Your task to perform on an android device: Do I have any events today? Image 0: 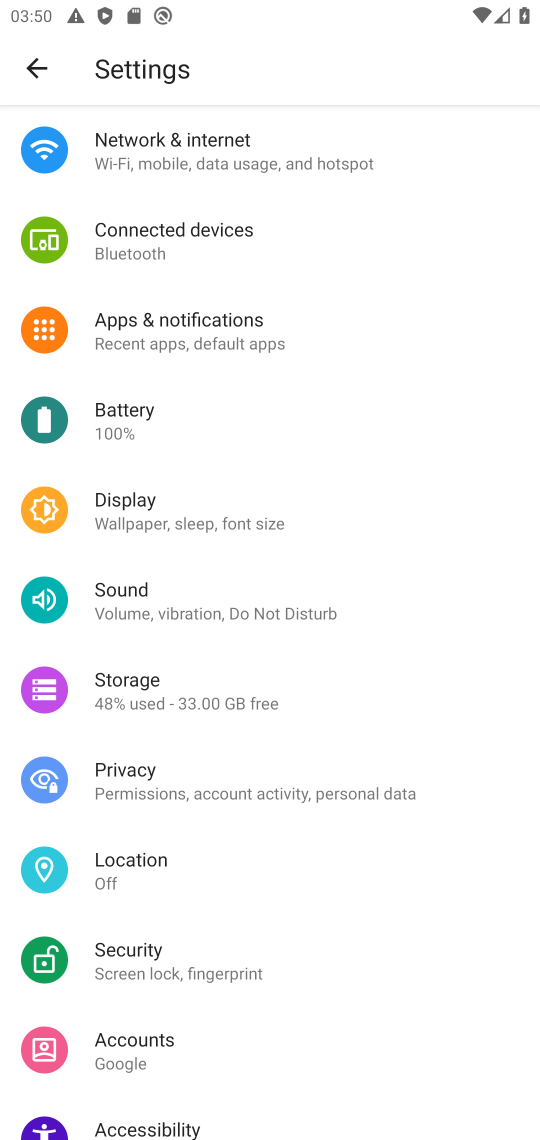
Step 0: press home button
Your task to perform on an android device: Do I have any events today? Image 1: 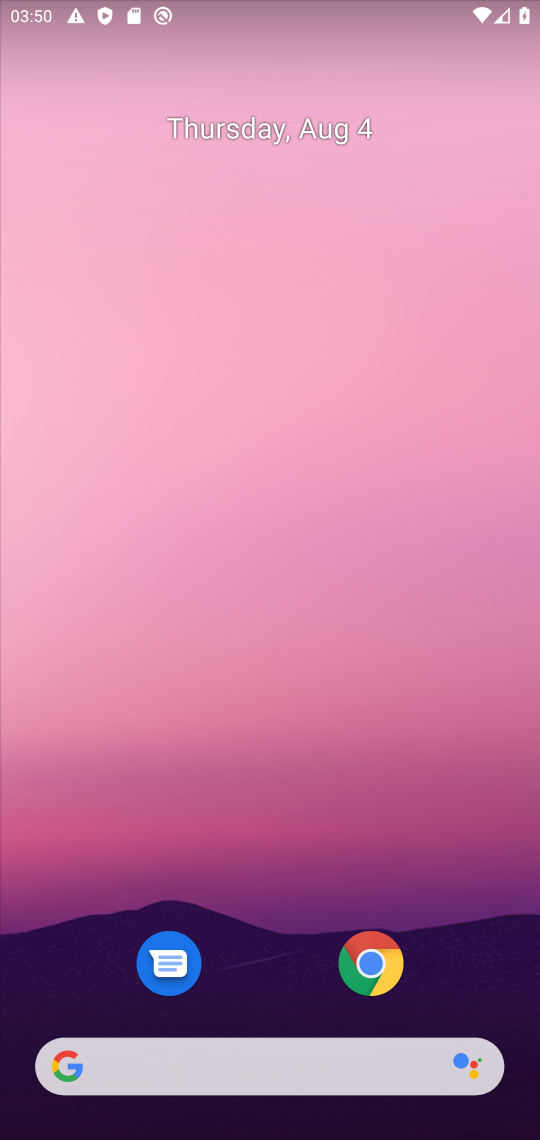
Step 1: drag from (252, 932) to (206, 106)
Your task to perform on an android device: Do I have any events today? Image 2: 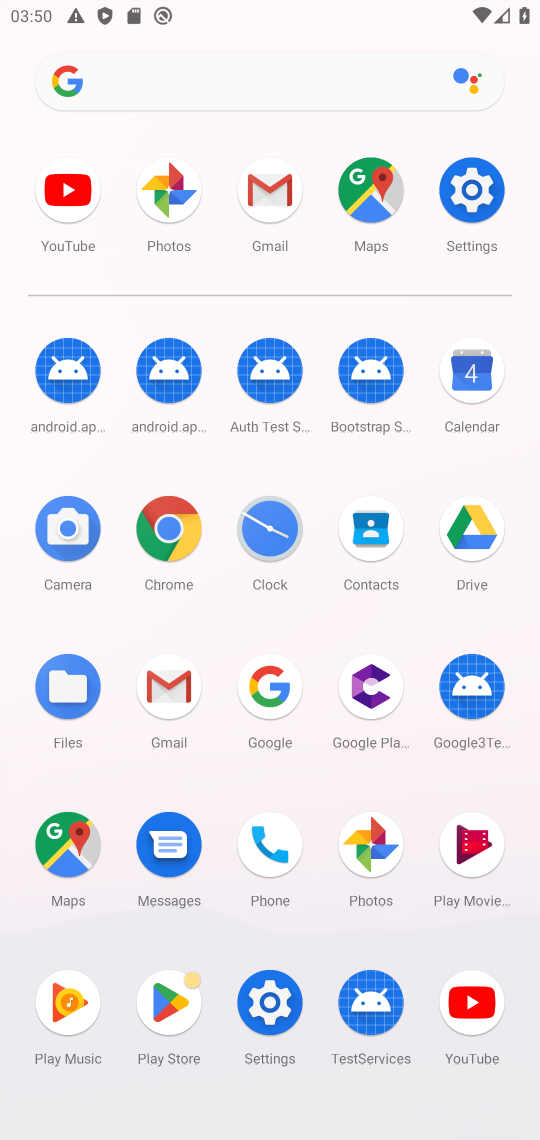
Step 2: click (494, 377)
Your task to perform on an android device: Do I have any events today? Image 3: 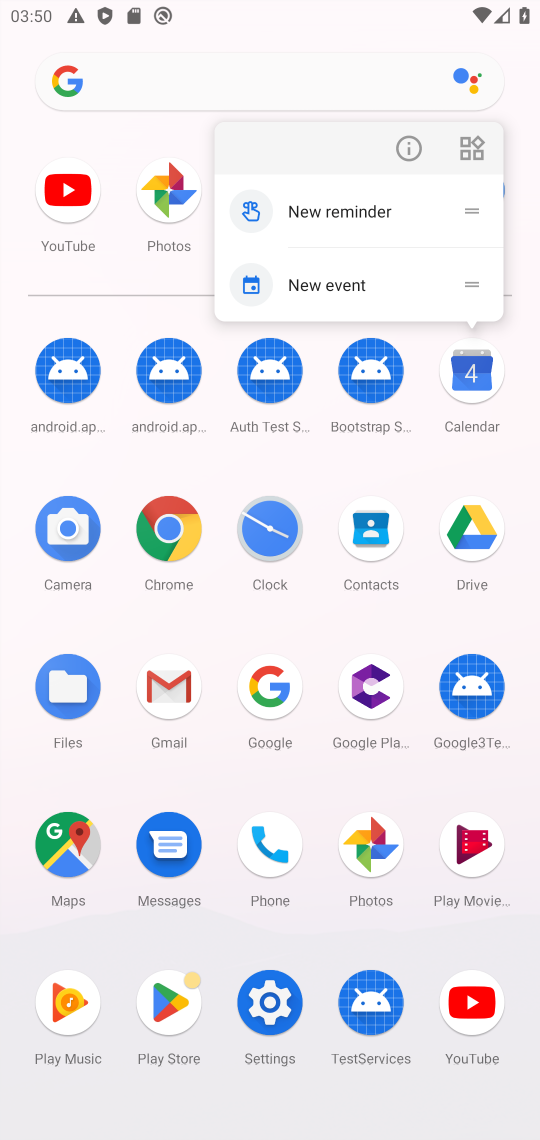
Step 3: click (479, 388)
Your task to perform on an android device: Do I have any events today? Image 4: 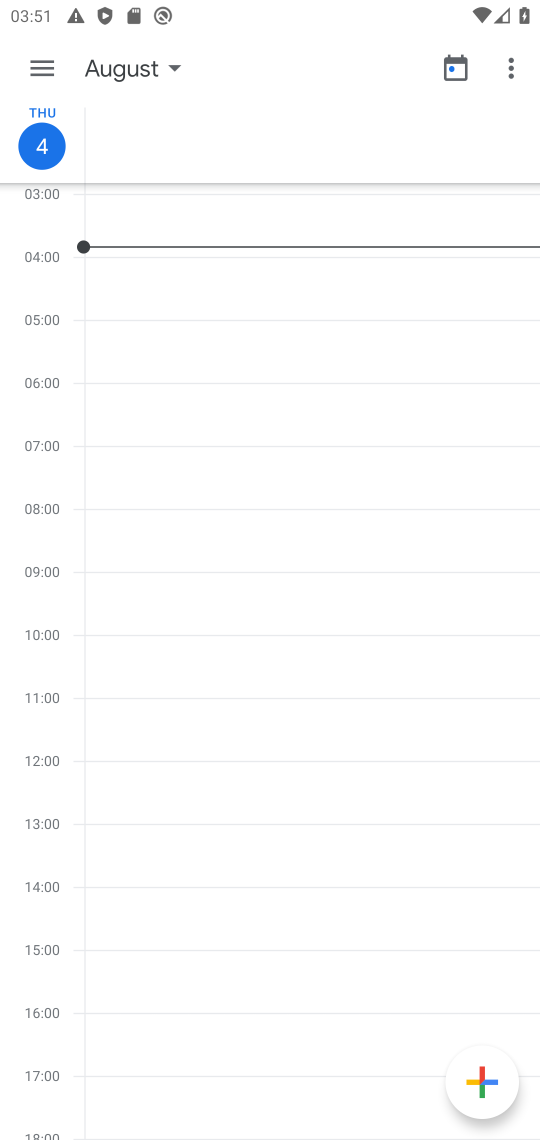
Step 4: click (35, 64)
Your task to perform on an android device: Do I have any events today? Image 5: 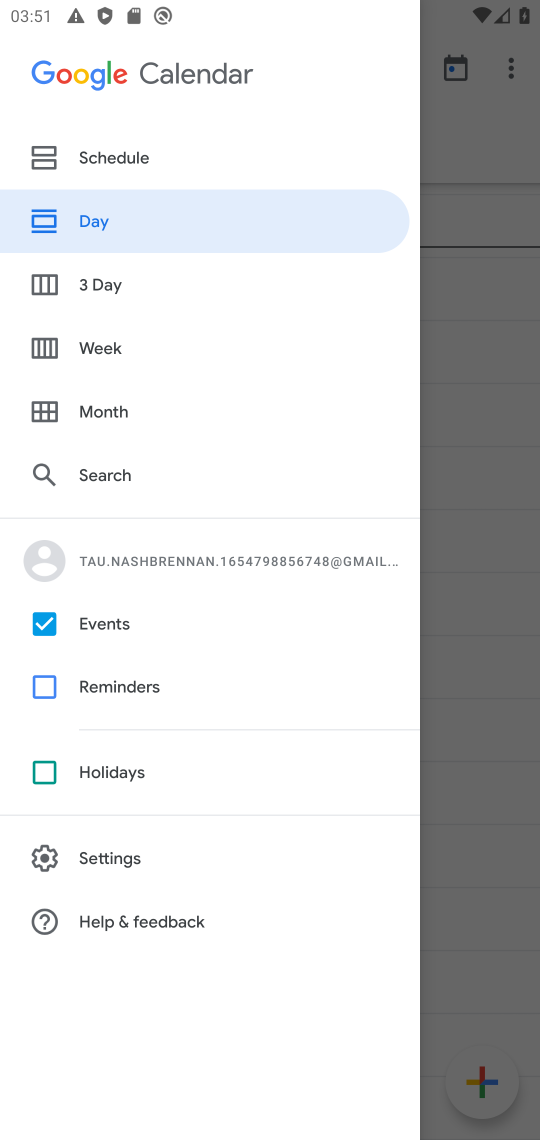
Step 5: click (59, 229)
Your task to perform on an android device: Do I have any events today? Image 6: 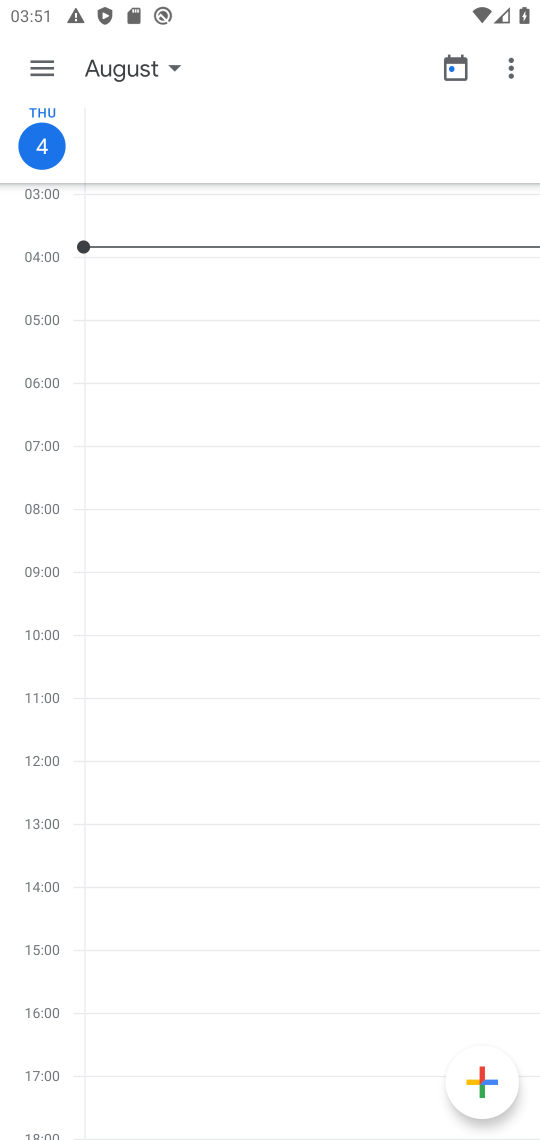
Step 6: task complete